Your task to perform on an android device: Open the calendar and show me this week's events? Image 0: 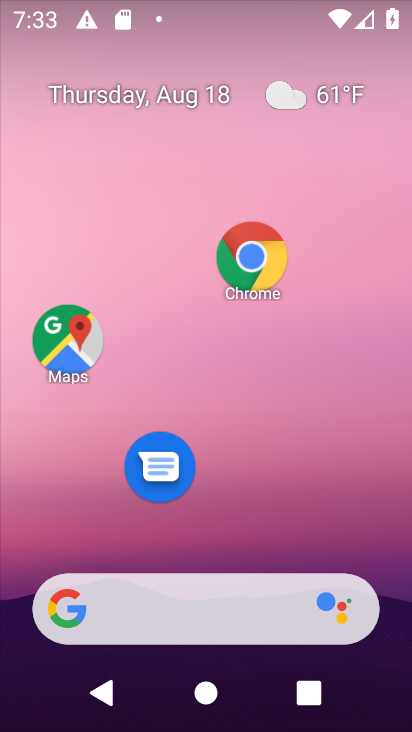
Step 0: drag from (295, 446) to (268, 86)
Your task to perform on an android device: Open the calendar and show me this week's events? Image 1: 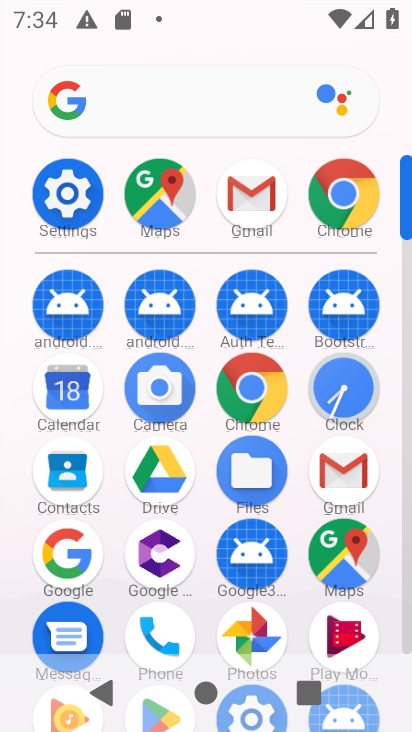
Step 1: click (351, 216)
Your task to perform on an android device: Open the calendar and show me this week's events? Image 2: 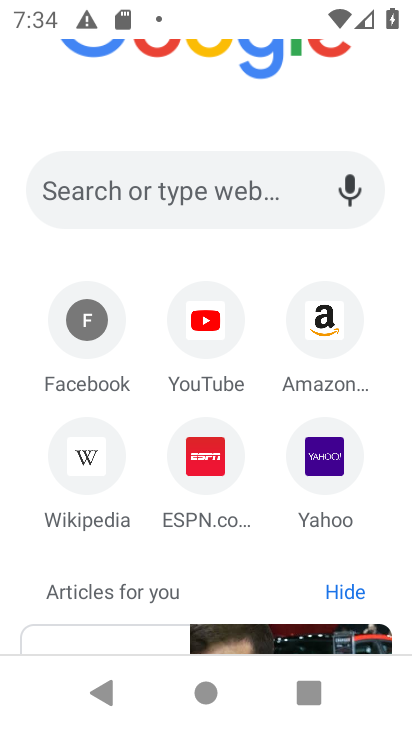
Step 2: task complete